Your task to perform on an android device: open app "Truecaller" Image 0: 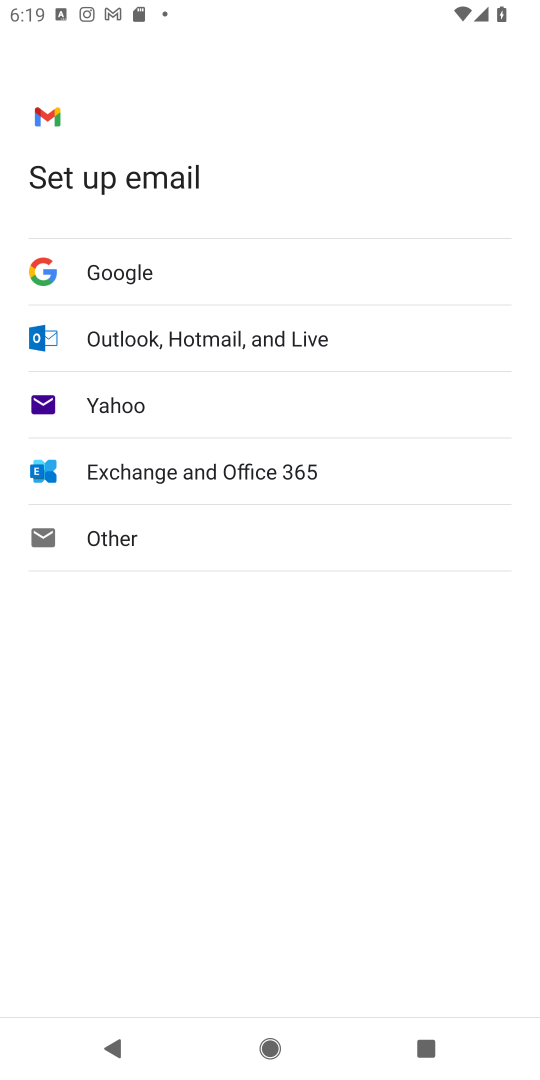
Step 0: press home button
Your task to perform on an android device: open app "Truecaller" Image 1: 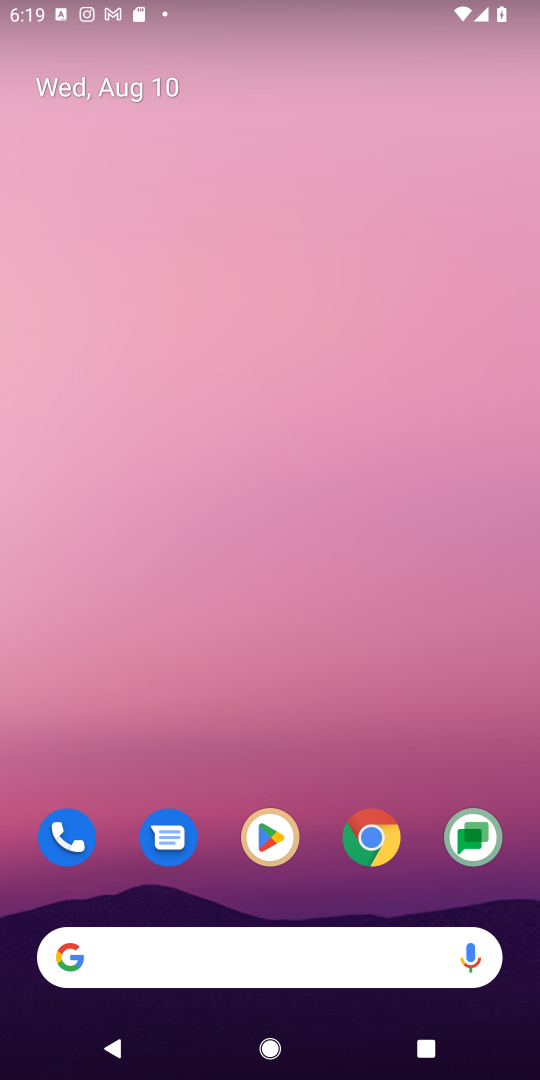
Step 1: click (274, 833)
Your task to perform on an android device: open app "Truecaller" Image 2: 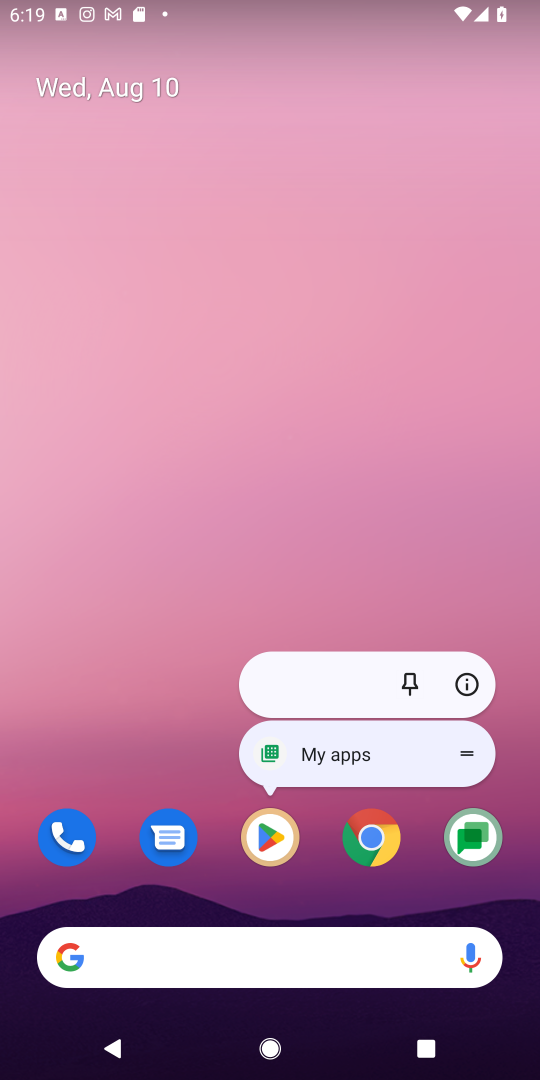
Step 2: click (265, 842)
Your task to perform on an android device: open app "Truecaller" Image 3: 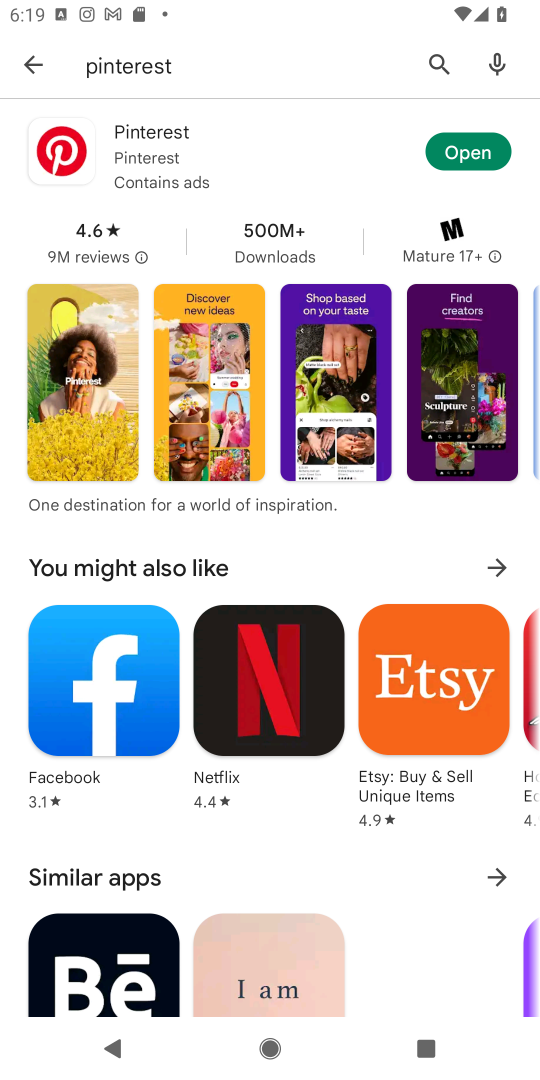
Step 3: click (433, 66)
Your task to perform on an android device: open app "Truecaller" Image 4: 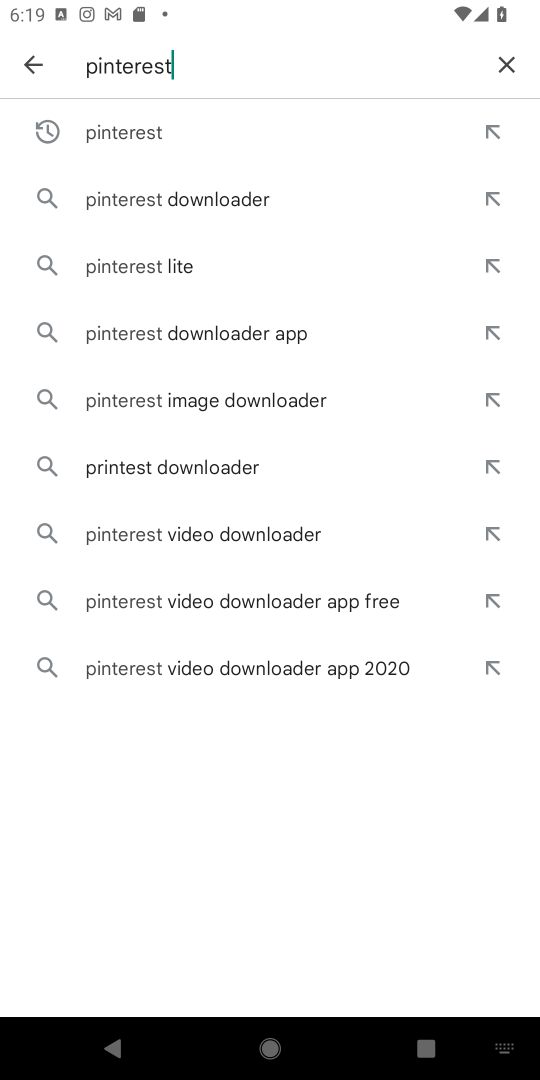
Step 4: click (511, 64)
Your task to perform on an android device: open app "Truecaller" Image 5: 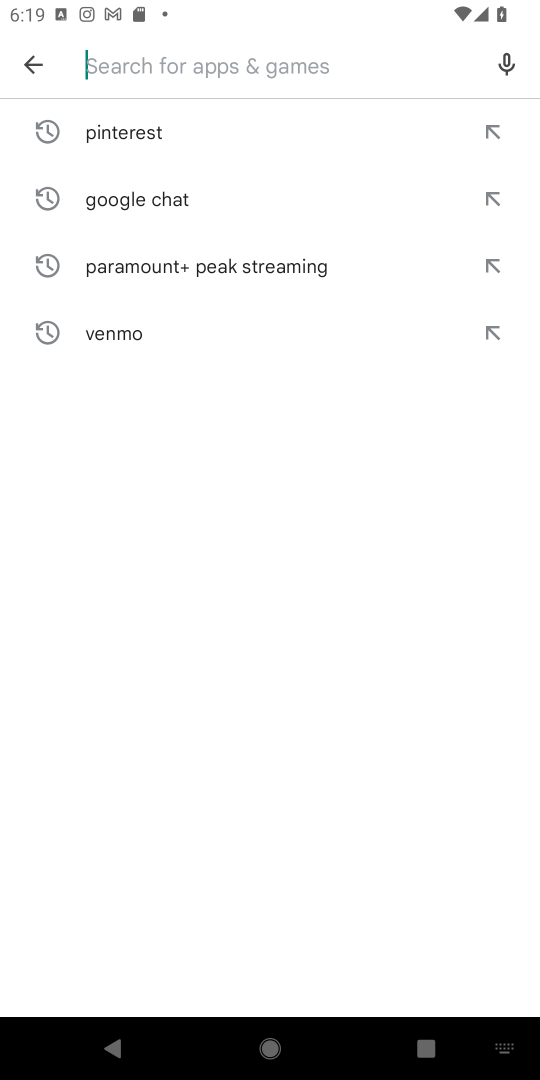
Step 5: type "Truecaller"
Your task to perform on an android device: open app "Truecaller" Image 6: 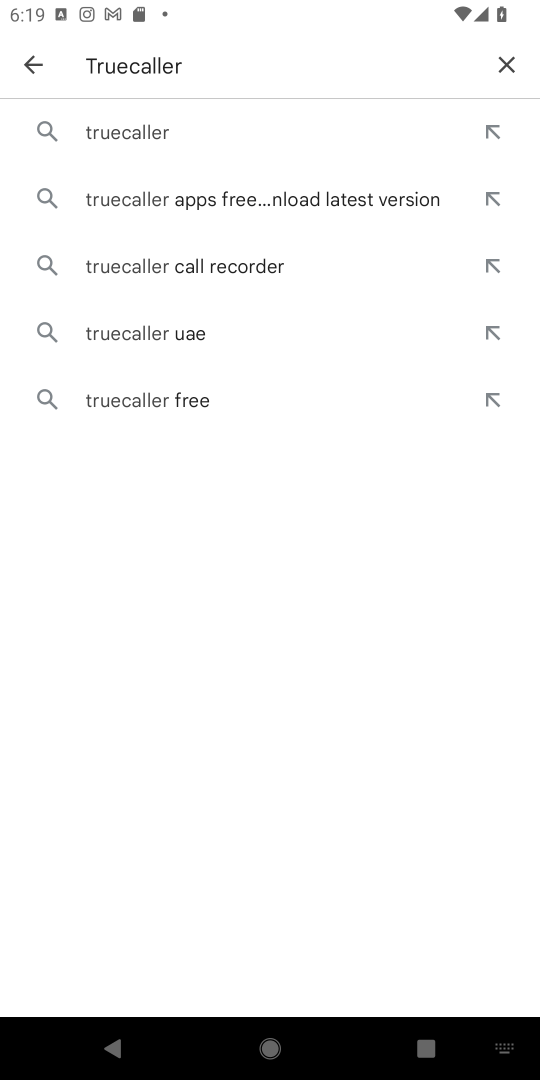
Step 6: click (134, 124)
Your task to perform on an android device: open app "Truecaller" Image 7: 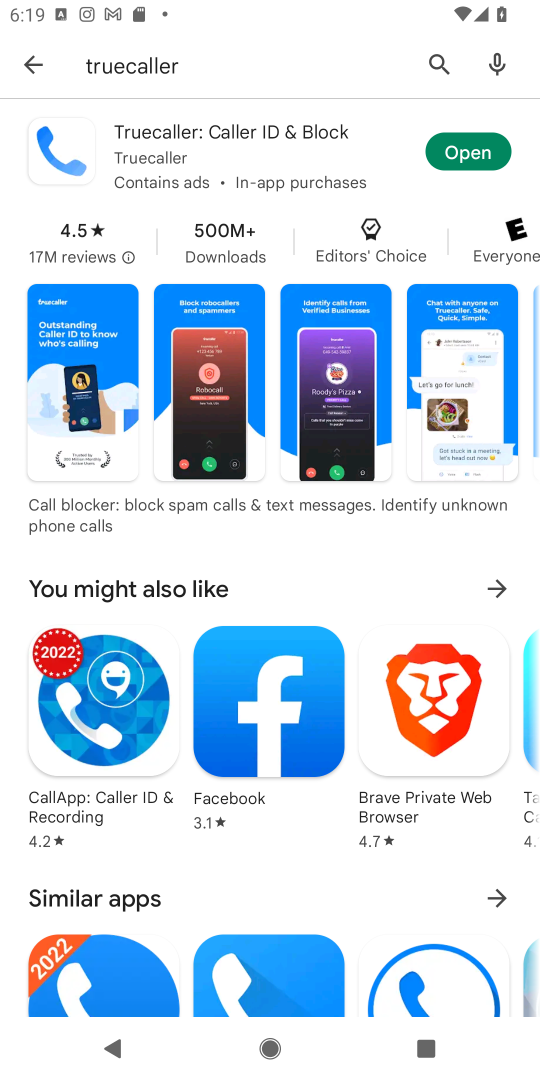
Step 7: click (467, 160)
Your task to perform on an android device: open app "Truecaller" Image 8: 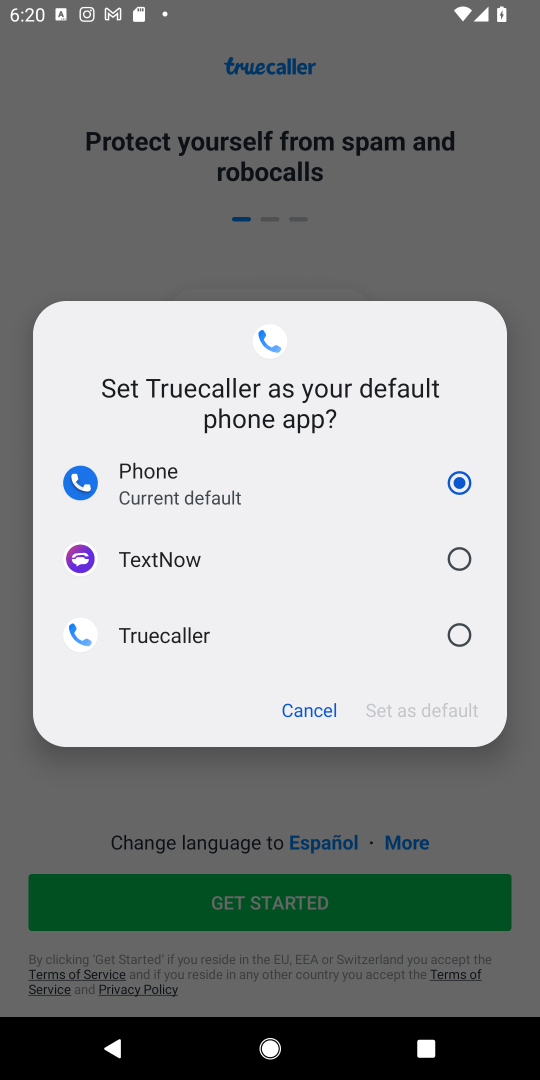
Step 8: task complete